Your task to perform on an android device: Play the new Bruno Mars video on YouTube Image 0: 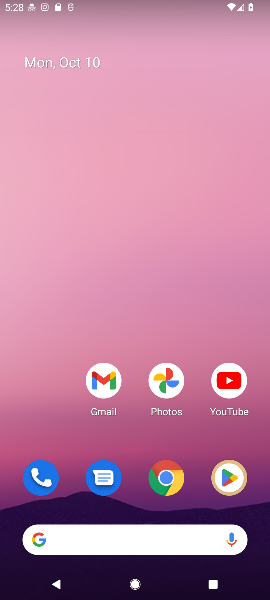
Step 0: click (233, 392)
Your task to perform on an android device: Play the new Bruno Mars video on YouTube Image 1: 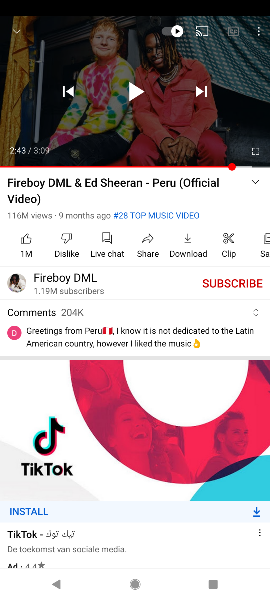
Step 1: click (16, 27)
Your task to perform on an android device: Play the new Bruno Mars video on YouTube Image 2: 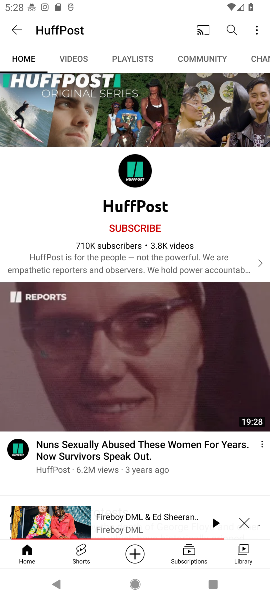
Step 2: click (236, 30)
Your task to perform on an android device: Play the new Bruno Mars video on YouTube Image 3: 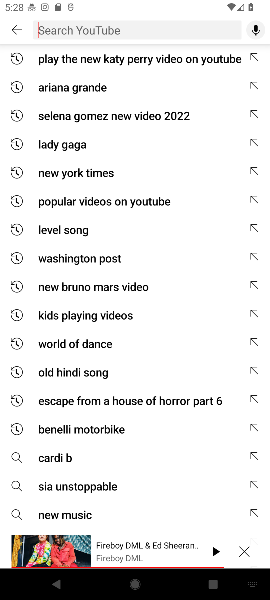
Step 3: type "new Bruno Mars video "
Your task to perform on an android device: Play the new Bruno Mars video on YouTube Image 4: 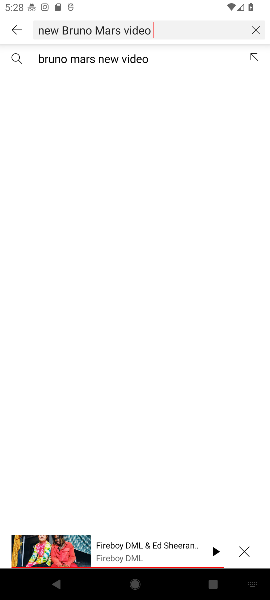
Step 4: click (159, 57)
Your task to perform on an android device: Play the new Bruno Mars video on YouTube Image 5: 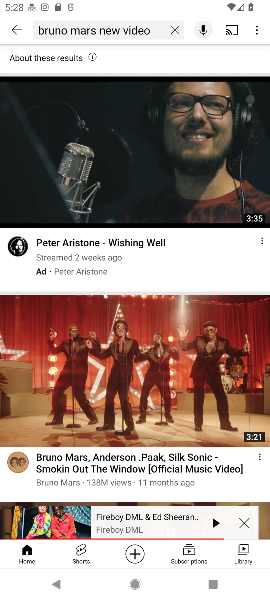
Step 5: click (84, 309)
Your task to perform on an android device: Play the new Bruno Mars video on YouTube Image 6: 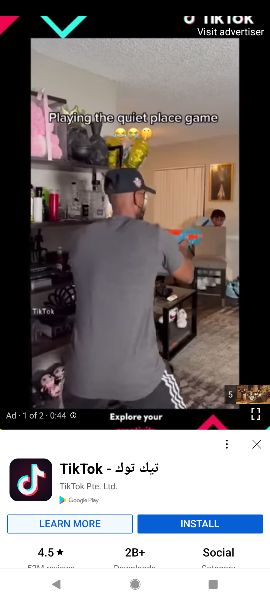
Step 6: task complete